Your task to perform on an android device: snooze an email in the gmail app Image 0: 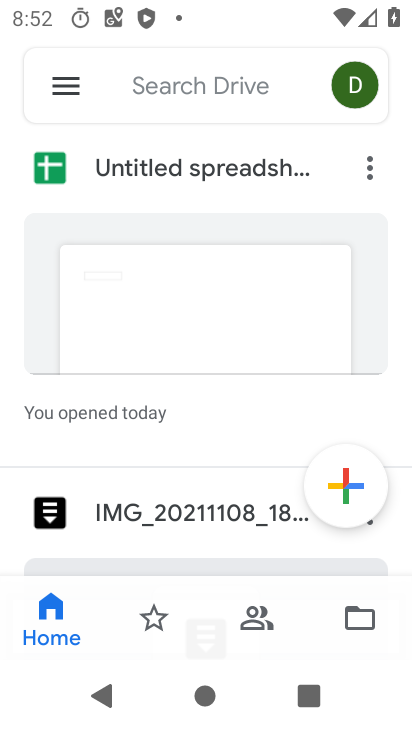
Step 0: press home button
Your task to perform on an android device: snooze an email in the gmail app Image 1: 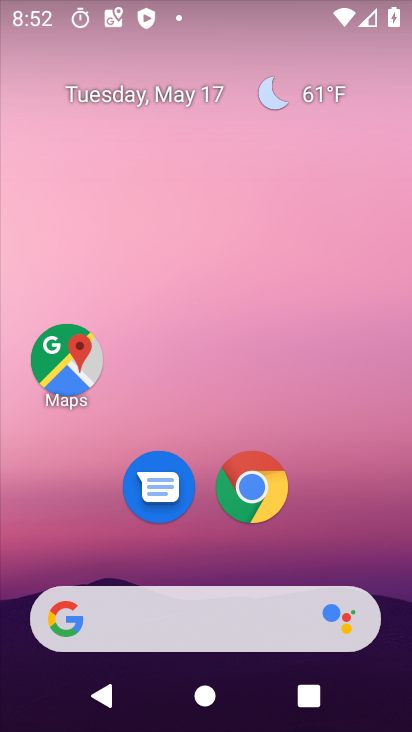
Step 1: drag from (179, 591) to (283, 248)
Your task to perform on an android device: snooze an email in the gmail app Image 2: 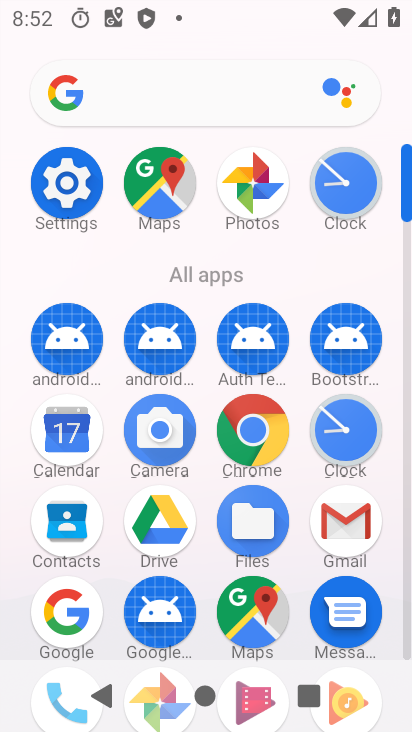
Step 2: click (341, 519)
Your task to perform on an android device: snooze an email in the gmail app Image 3: 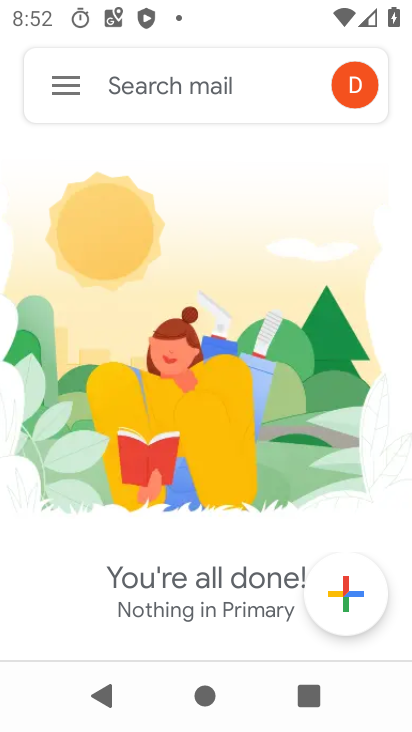
Step 3: task complete